Your task to perform on an android device: Open calendar and show me the second week of next month Image 0: 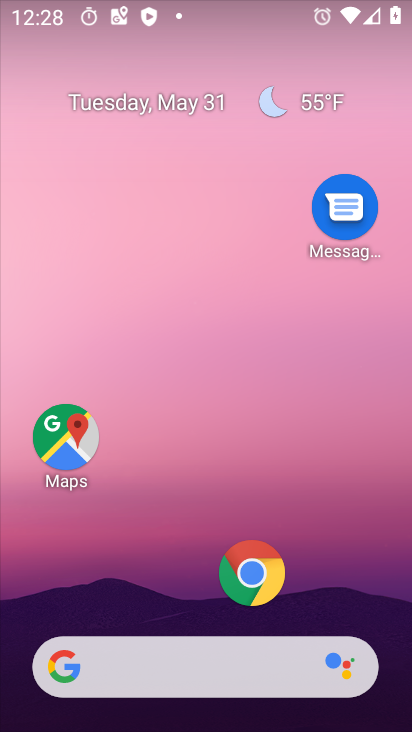
Step 0: drag from (179, 595) to (193, 136)
Your task to perform on an android device: Open calendar and show me the second week of next month Image 1: 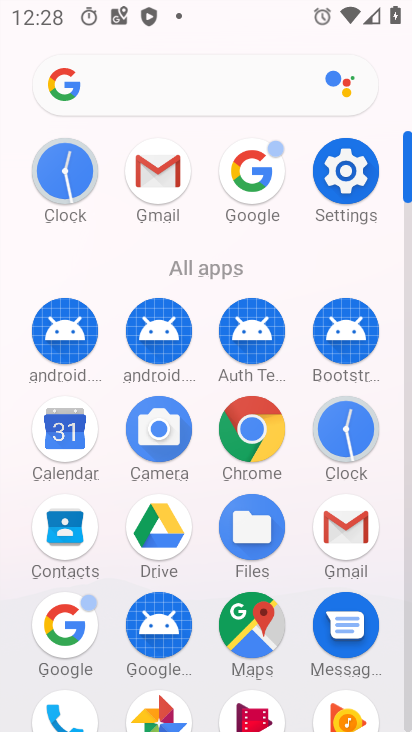
Step 1: click (67, 435)
Your task to perform on an android device: Open calendar and show me the second week of next month Image 2: 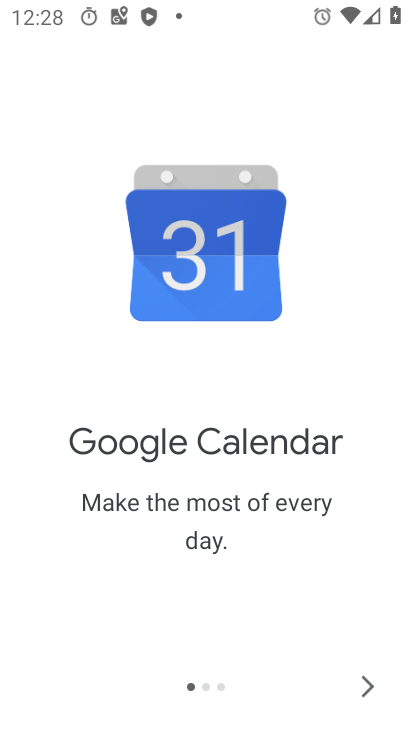
Step 2: click (373, 681)
Your task to perform on an android device: Open calendar and show me the second week of next month Image 3: 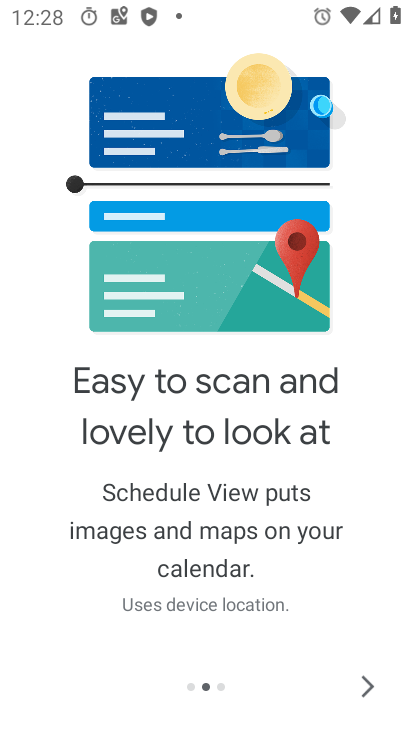
Step 3: click (347, 676)
Your task to perform on an android device: Open calendar and show me the second week of next month Image 4: 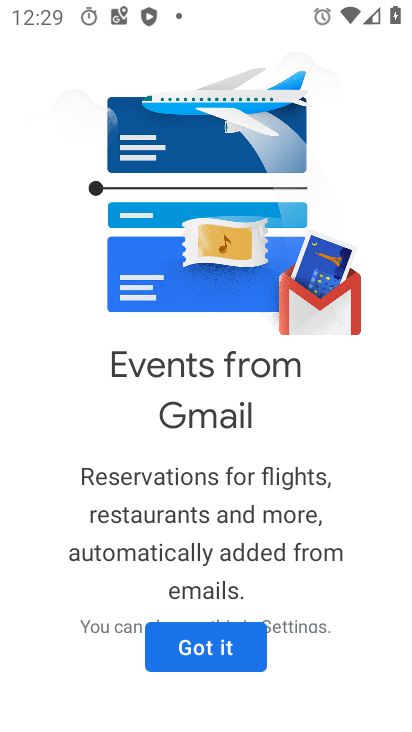
Step 4: click (218, 641)
Your task to perform on an android device: Open calendar and show me the second week of next month Image 5: 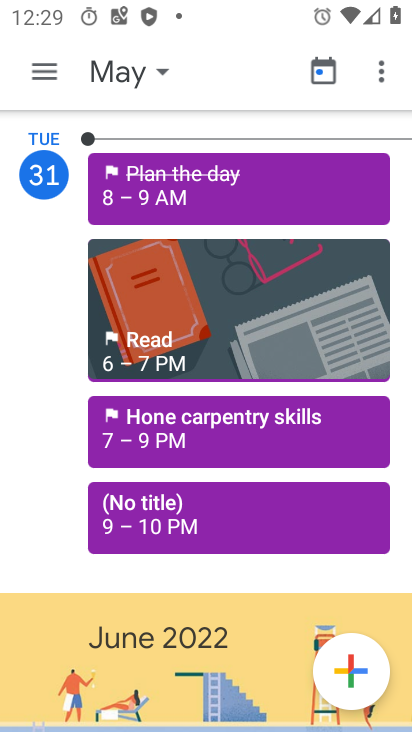
Step 5: click (126, 70)
Your task to perform on an android device: Open calendar and show me the second week of next month Image 6: 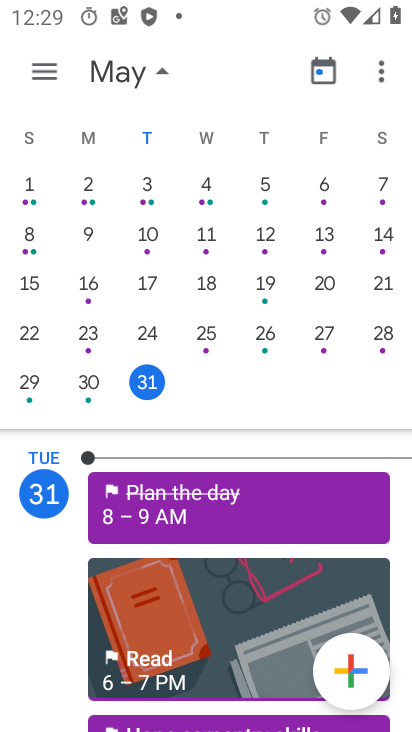
Step 6: drag from (372, 322) to (10, 325)
Your task to perform on an android device: Open calendar and show me the second week of next month Image 7: 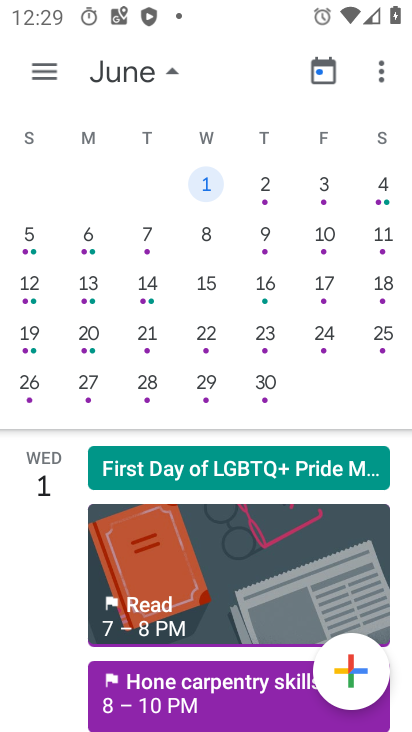
Step 7: click (39, 241)
Your task to perform on an android device: Open calendar and show me the second week of next month Image 8: 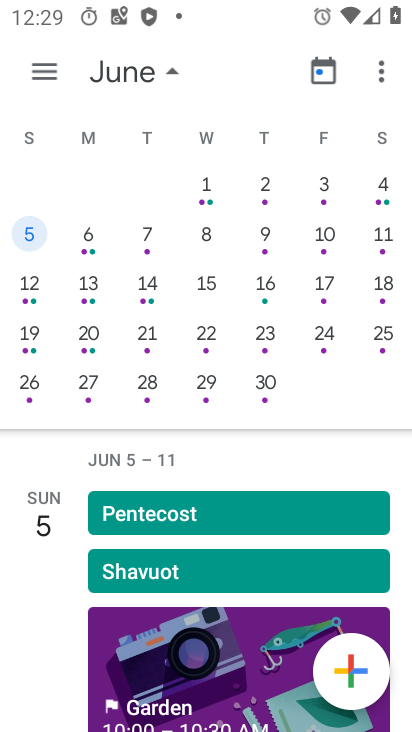
Step 8: task complete